Your task to perform on an android device: Open notification settings Image 0: 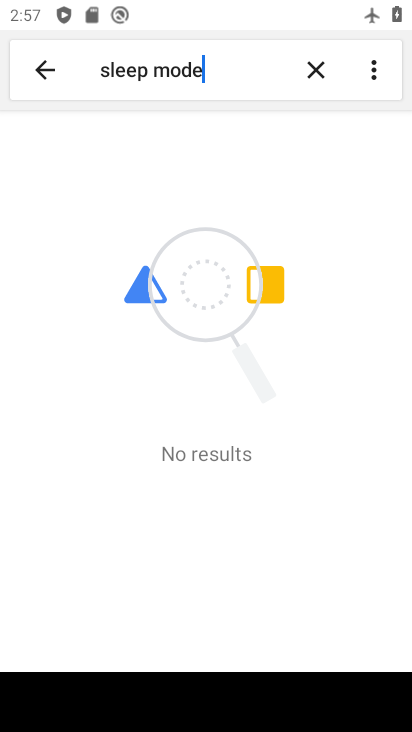
Step 0: click (38, 72)
Your task to perform on an android device: Open notification settings Image 1: 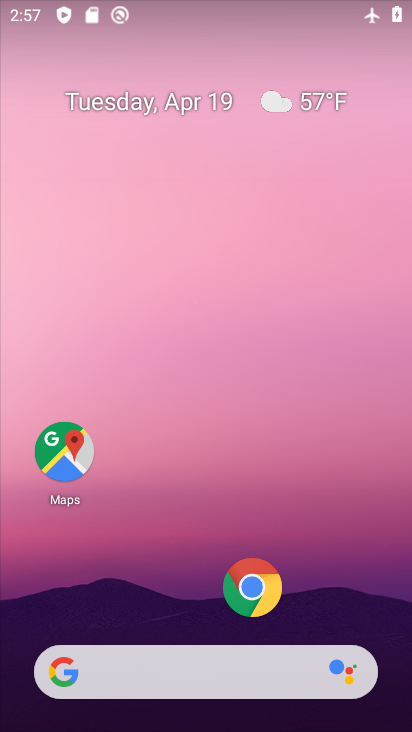
Step 1: drag from (148, 471) to (375, 617)
Your task to perform on an android device: Open notification settings Image 2: 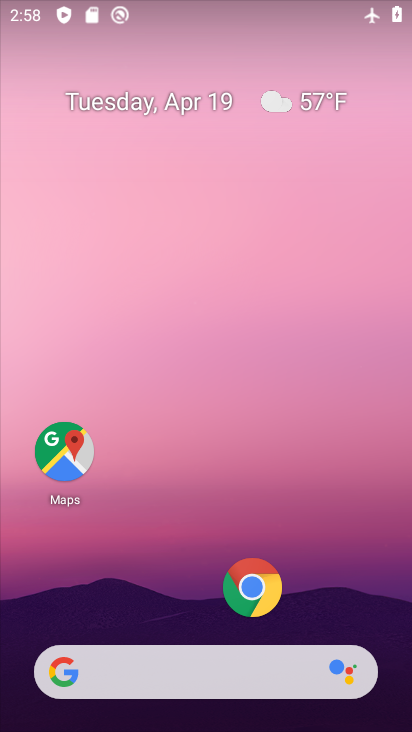
Step 2: drag from (183, 613) to (290, 7)
Your task to perform on an android device: Open notification settings Image 3: 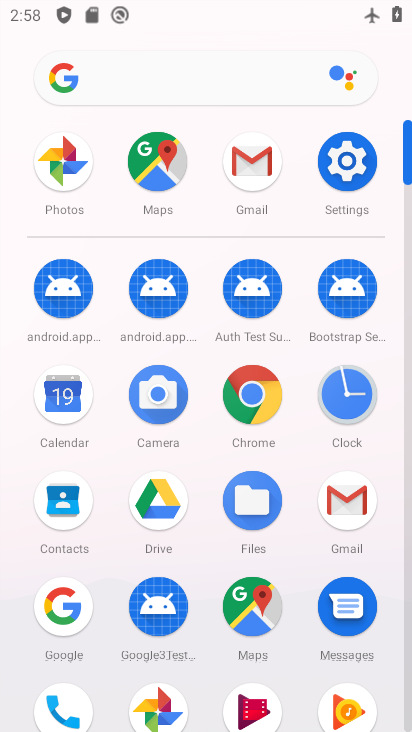
Step 3: click (346, 197)
Your task to perform on an android device: Open notification settings Image 4: 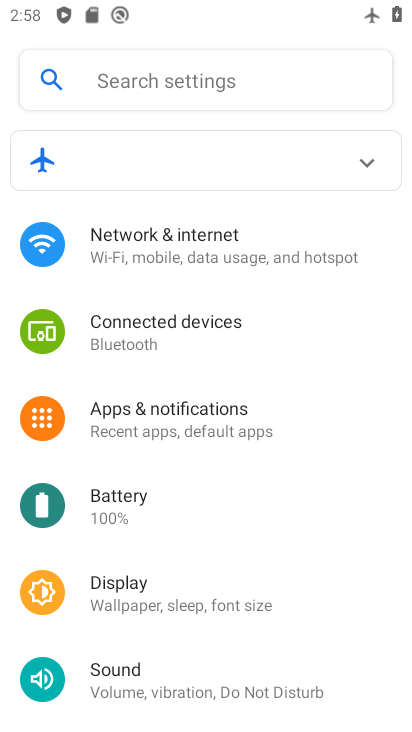
Step 4: click (172, 427)
Your task to perform on an android device: Open notification settings Image 5: 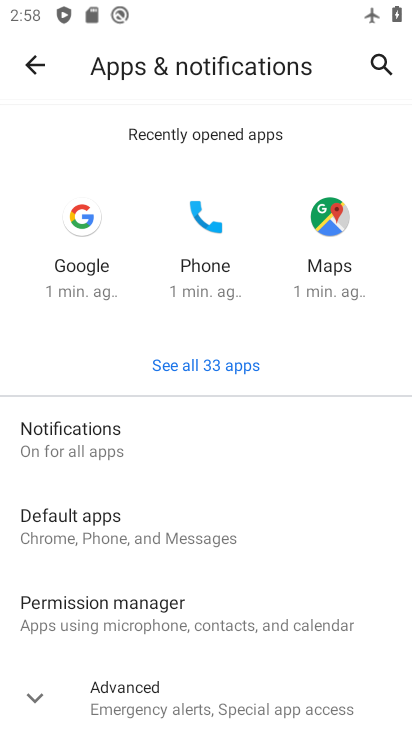
Step 5: click (101, 445)
Your task to perform on an android device: Open notification settings Image 6: 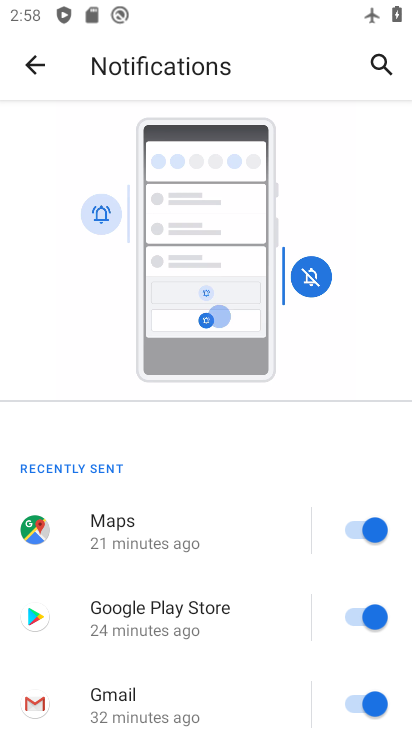
Step 6: task complete